Your task to perform on an android device: check android version Image 0: 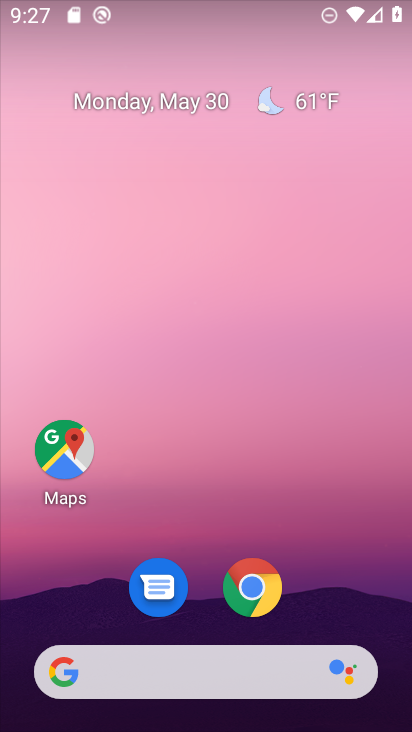
Step 0: drag from (226, 637) to (219, 7)
Your task to perform on an android device: check android version Image 1: 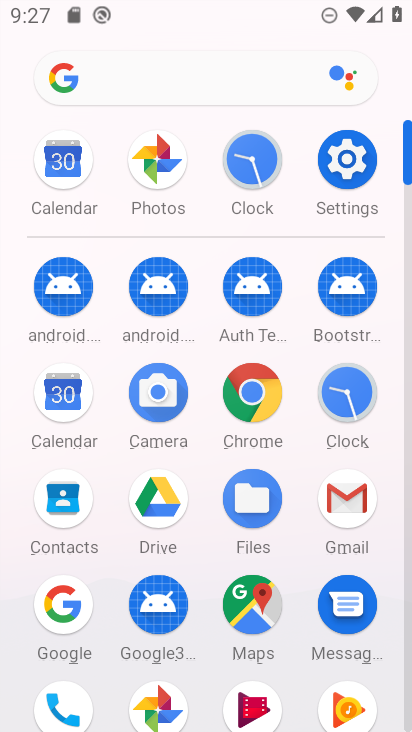
Step 1: click (339, 160)
Your task to perform on an android device: check android version Image 2: 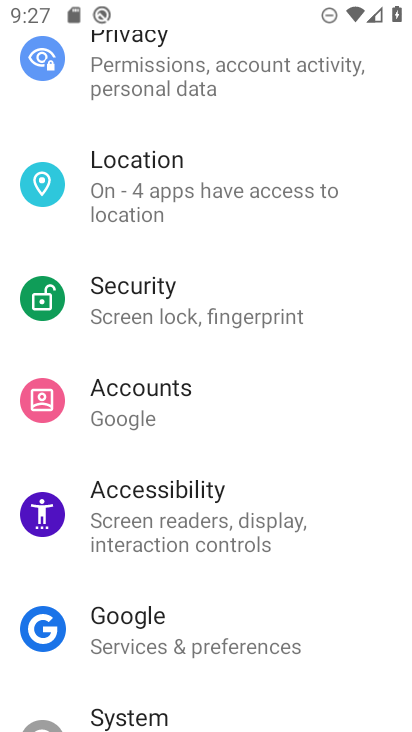
Step 2: drag from (258, 599) to (259, 10)
Your task to perform on an android device: check android version Image 3: 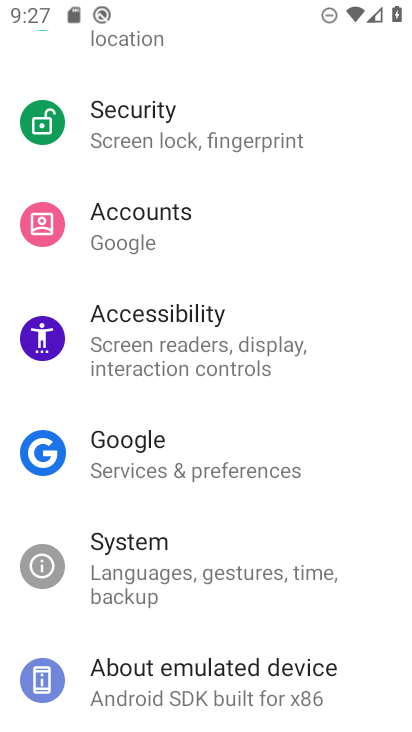
Step 3: click (173, 660)
Your task to perform on an android device: check android version Image 4: 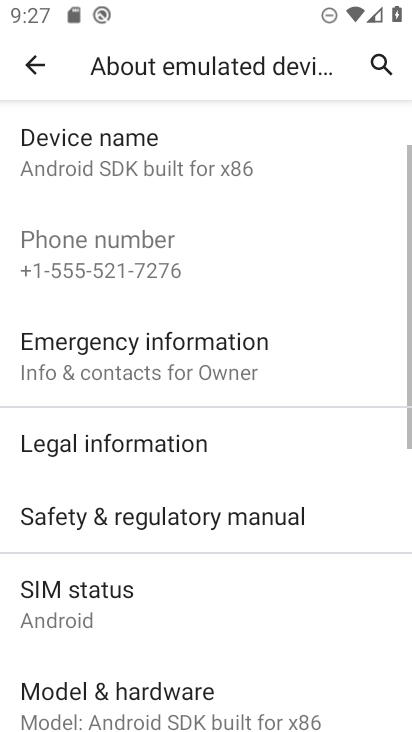
Step 4: drag from (181, 576) to (106, 72)
Your task to perform on an android device: check android version Image 5: 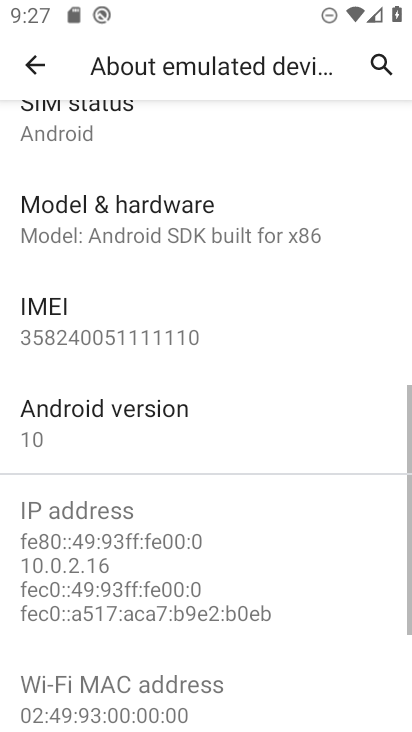
Step 5: click (123, 411)
Your task to perform on an android device: check android version Image 6: 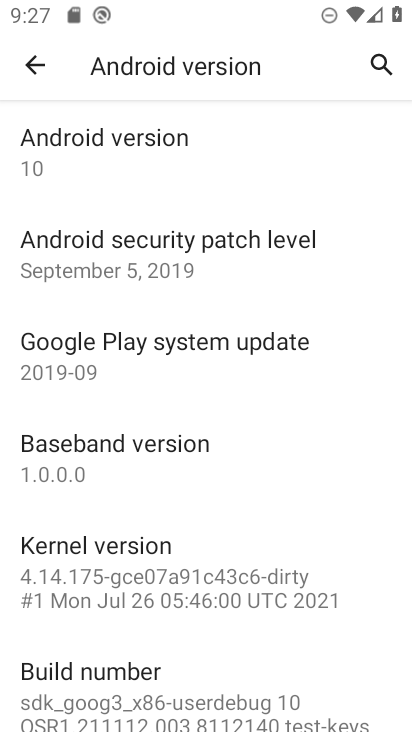
Step 6: click (92, 156)
Your task to perform on an android device: check android version Image 7: 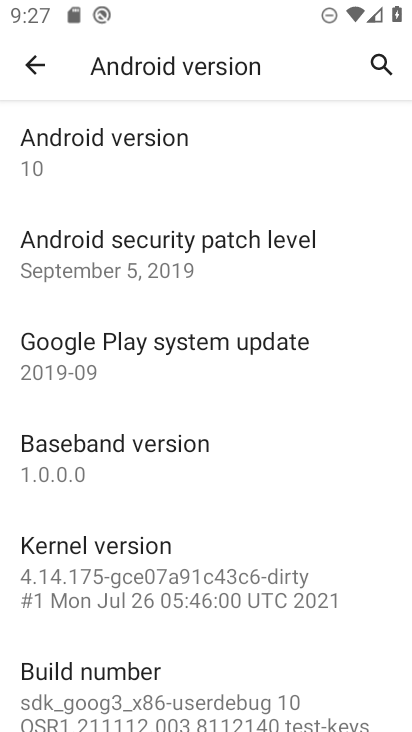
Step 7: task complete